Your task to perform on an android device: create a new album in the google photos Image 0: 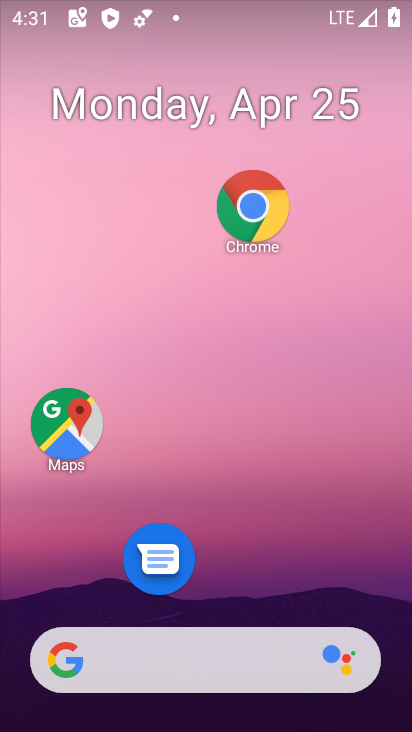
Step 0: drag from (263, 544) to (298, 57)
Your task to perform on an android device: create a new album in the google photos Image 1: 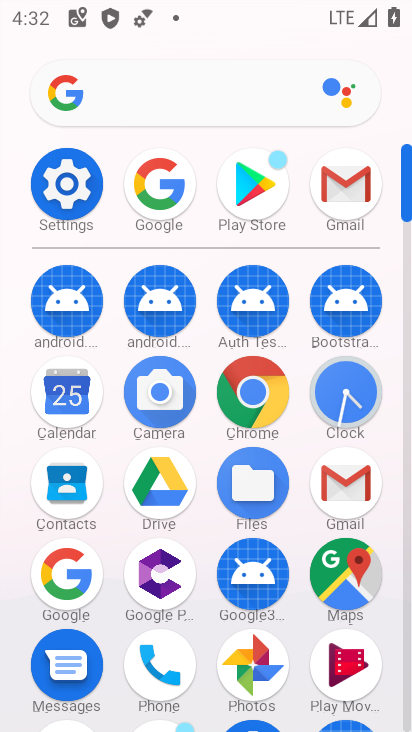
Step 1: click (253, 663)
Your task to perform on an android device: create a new album in the google photos Image 2: 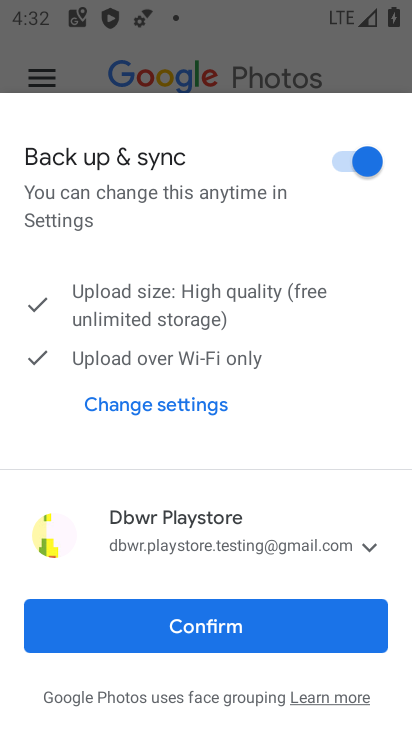
Step 2: click (202, 625)
Your task to perform on an android device: create a new album in the google photos Image 3: 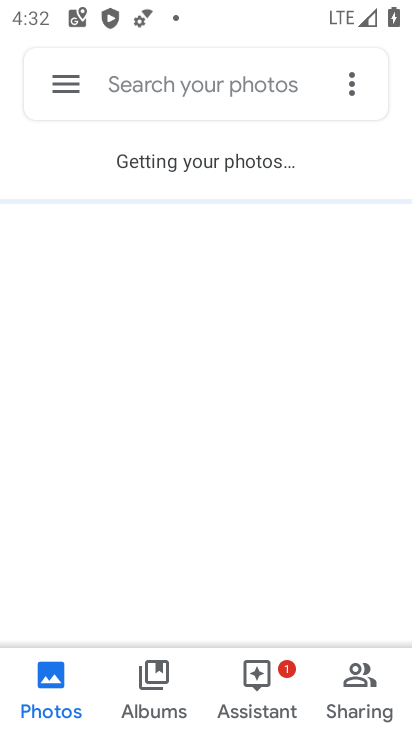
Step 3: click (350, 84)
Your task to perform on an android device: create a new album in the google photos Image 4: 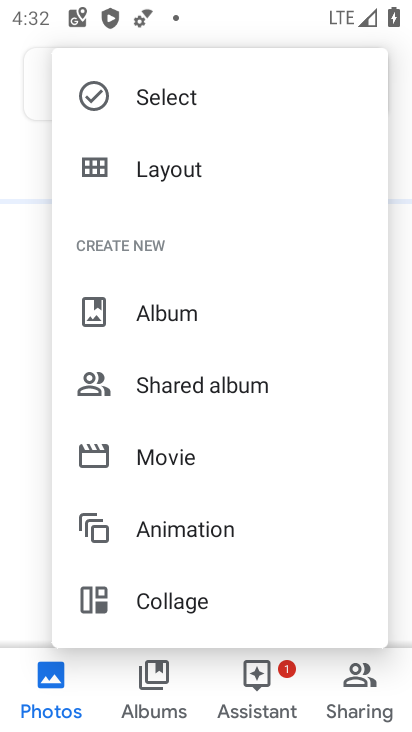
Step 4: click (163, 314)
Your task to perform on an android device: create a new album in the google photos Image 5: 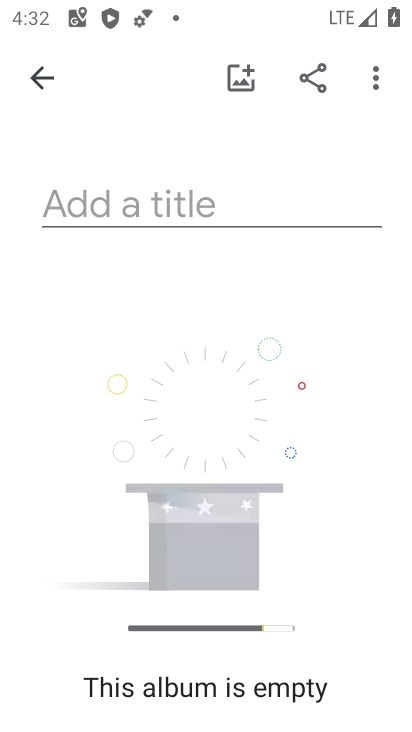
Step 5: click (214, 207)
Your task to perform on an android device: create a new album in the google photos Image 6: 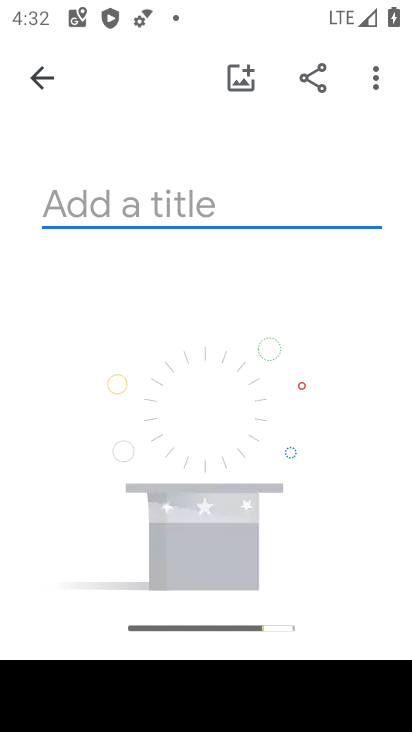
Step 6: type "Heaven"
Your task to perform on an android device: create a new album in the google photos Image 7: 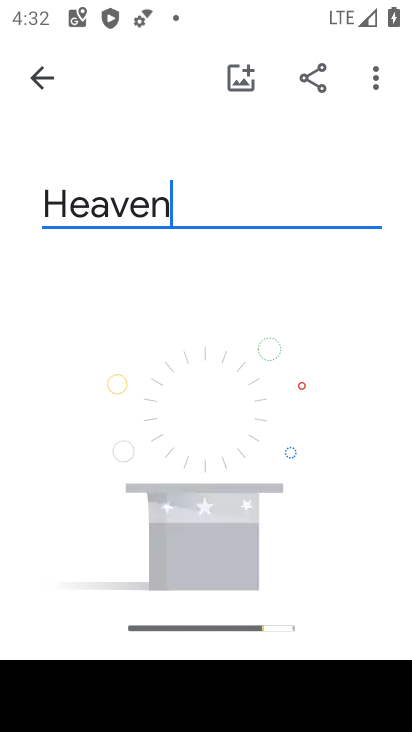
Step 7: drag from (320, 453) to (342, 253)
Your task to perform on an android device: create a new album in the google photos Image 8: 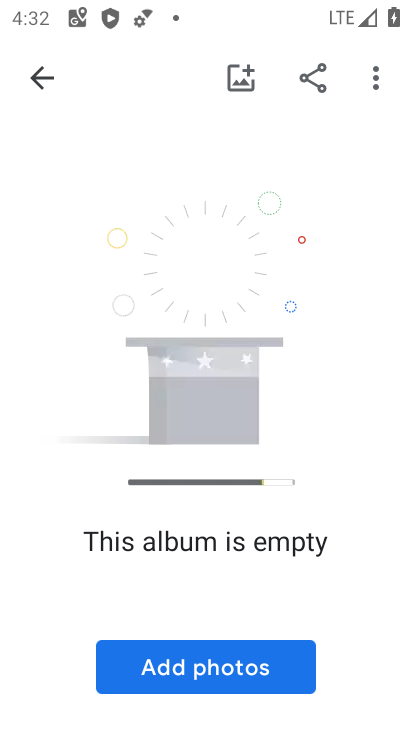
Step 8: click (182, 665)
Your task to perform on an android device: create a new album in the google photos Image 9: 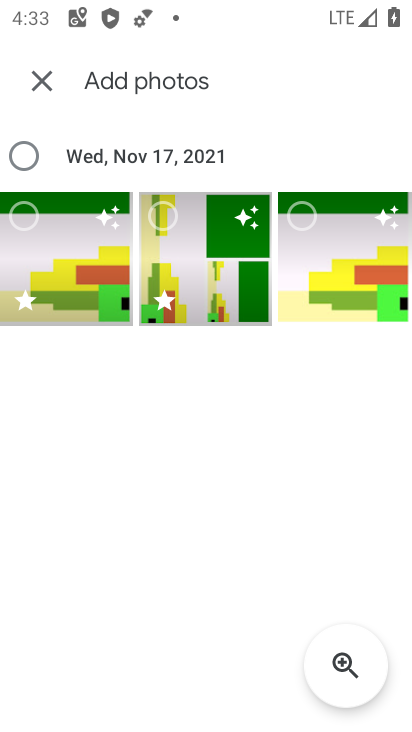
Step 9: click (29, 224)
Your task to perform on an android device: create a new album in the google photos Image 10: 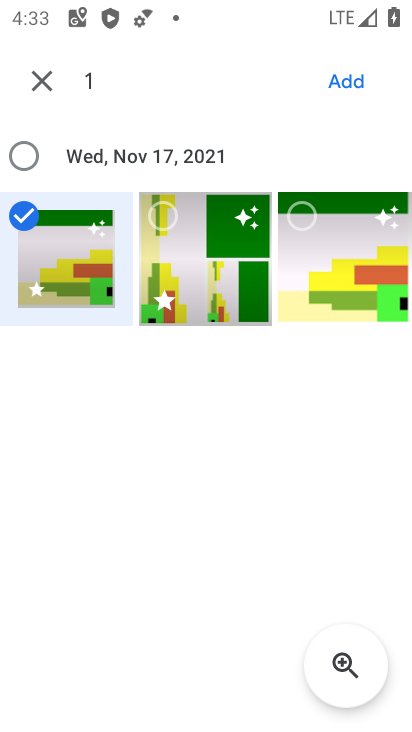
Step 10: click (353, 90)
Your task to perform on an android device: create a new album in the google photos Image 11: 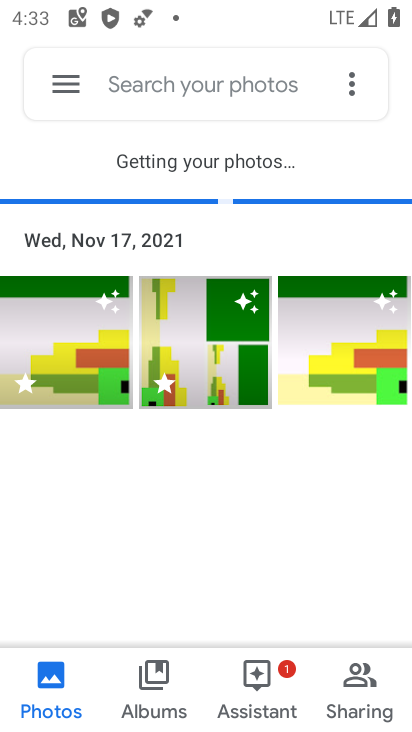
Step 11: task complete